Your task to perform on an android device: open a new tab in the chrome app Image 0: 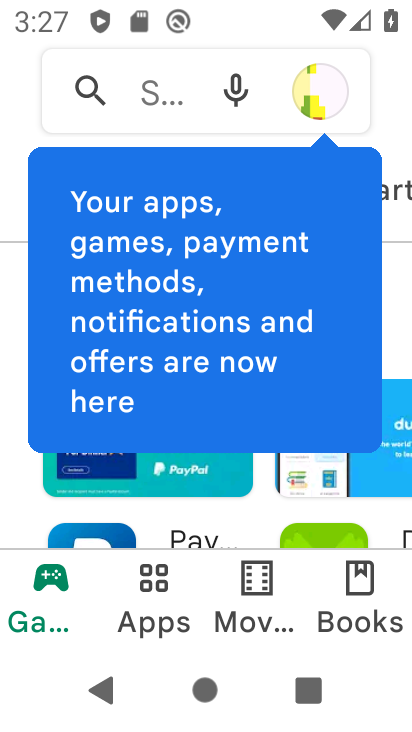
Step 0: press home button
Your task to perform on an android device: open a new tab in the chrome app Image 1: 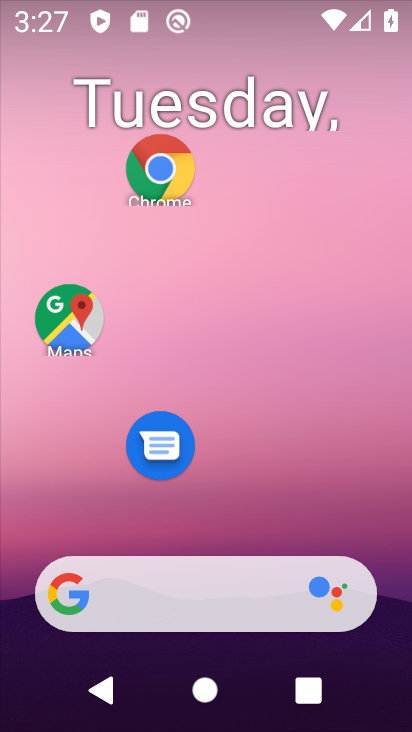
Step 1: click (158, 171)
Your task to perform on an android device: open a new tab in the chrome app Image 2: 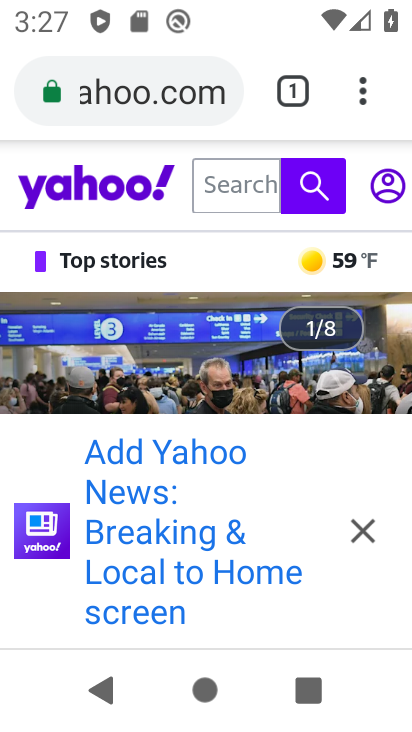
Step 2: click (365, 87)
Your task to perform on an android device: open a new tab in the chrome app Image 3: 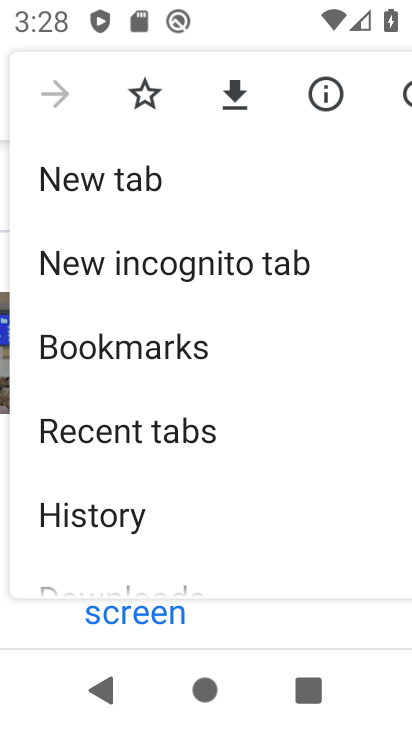
Step 3: click (140, 175)
Your task to perform on an android device: open a new tab in the chrome app Image 4: 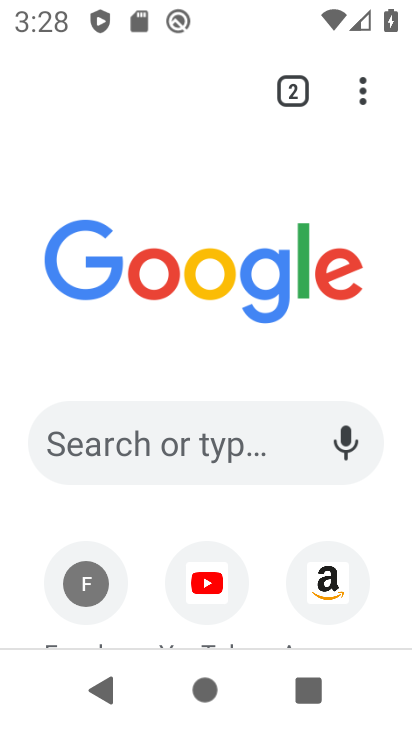
Step 4: task complete